Your task to perform on an android device: Open Youtube and go to "Your channel" Image 0: 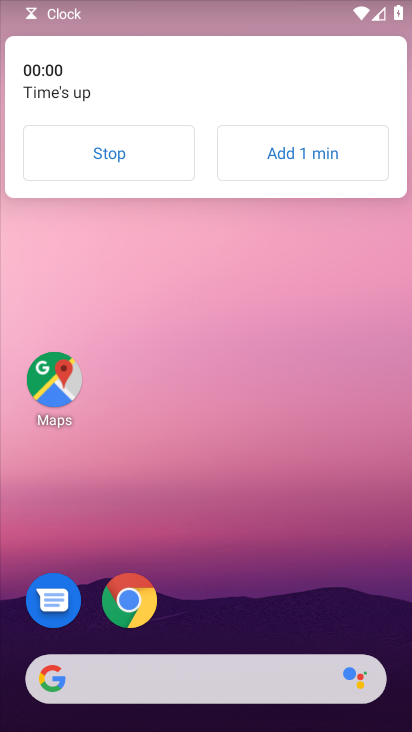
Step 0: drag from (212, 602) to (223, 361)
Your task to perform on an android device: Open Youtube and go to "Your channel" Image 1: 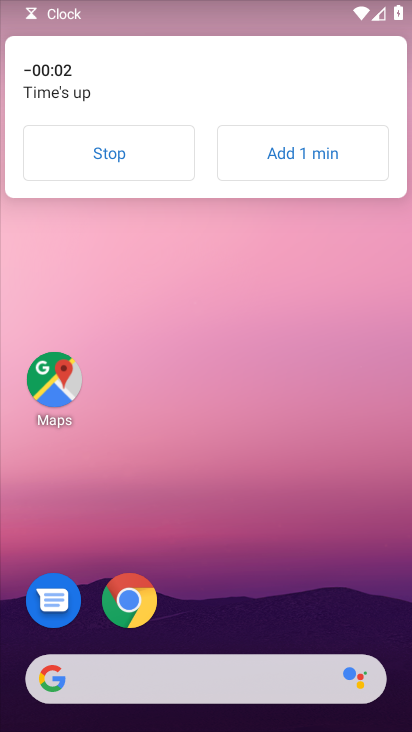
Step 1: click (130, 156)
Your task to perform on an android device: Open Youtube and go to "Your channel" Image 2: 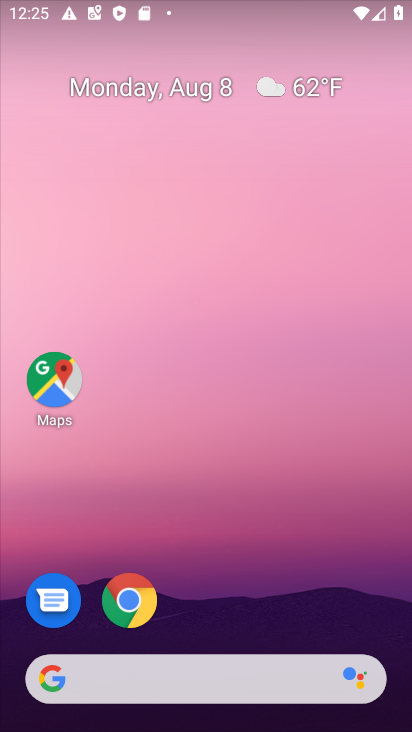
Step 2: drag from (232, 587) to (232, 183)
Your task to perform on an android device: Open Youtube and go to "Your channel" Image 3: 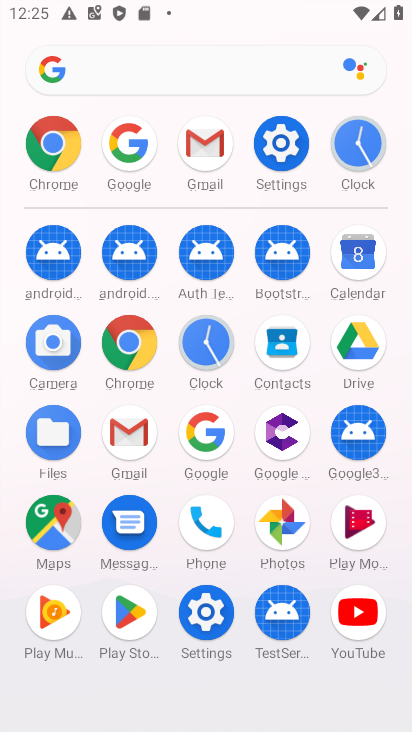
Step 3: click (359, 621)
Your task to perform on an android device: Open Youtube and go to "Your channel" Image 4: 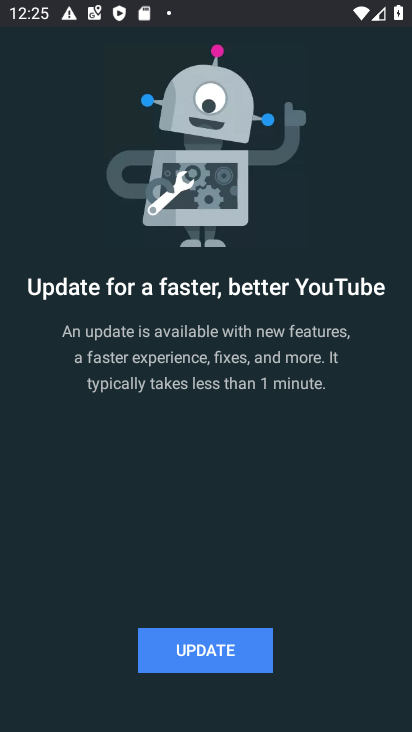
Step 4: click (217, 663)
Your task to perform on an android device: Open Youtube and go to "Your channel" Image 5: 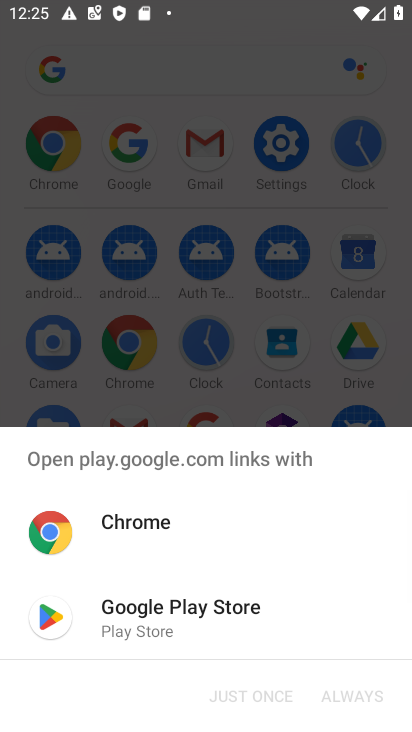
Step 5: click (241, 602)
Your task to perform on an android device: Open Youtube and go to "Your channel" Image 6: 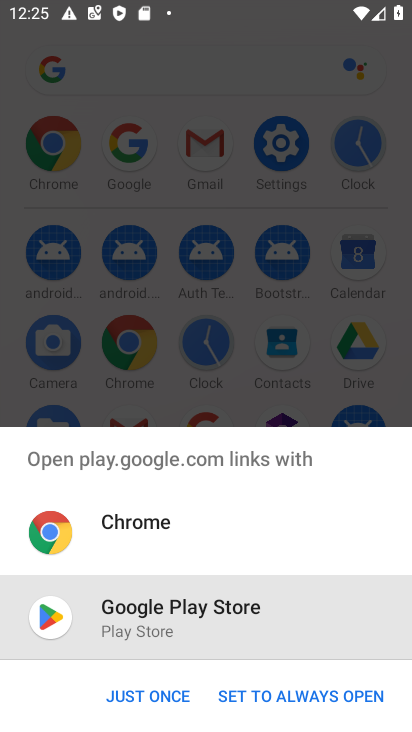
Step 6: click (147, 703)
Your task to perform on an android device: Open Youtube and go to "Your channel" Image 7: 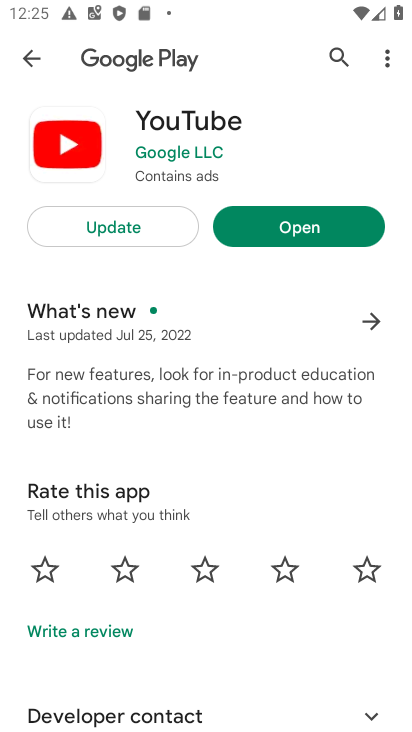
Step 7: click (131, 223)
Your task to perform on an android device: Open Youtube and go to "Your channel" Image 8: 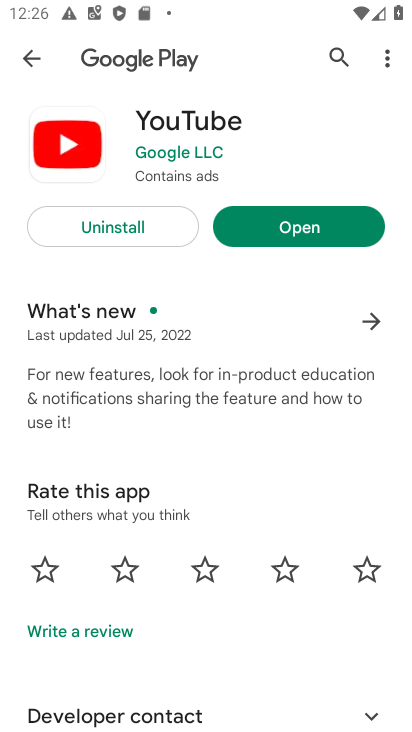
Step 8: click (280, 227)
Your task to perform on an android device: Open Youtube and go to "Your channel" Image 9: 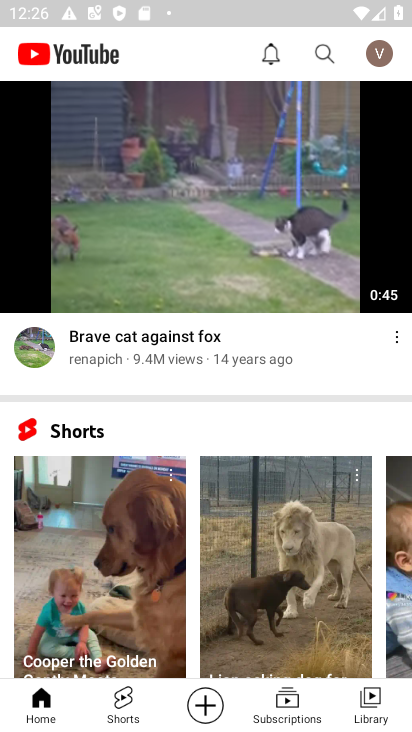
Step 9: click (374, 56)
Your task to perform on an android device: Open Youtube and go to "Your channel" Image 10: 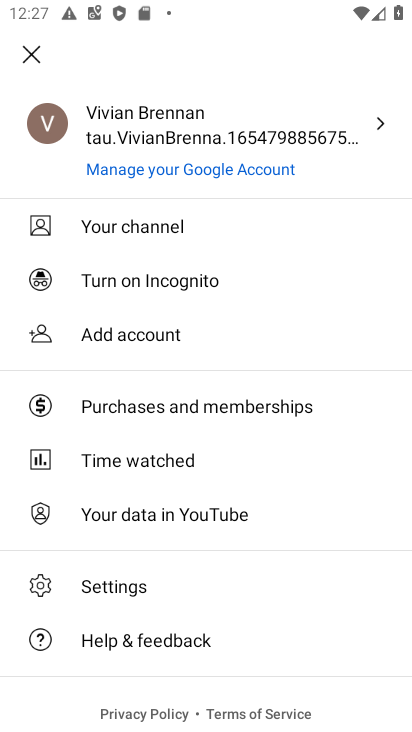
Step 10: click (91, 234)
Your task to perform on an android device: Open Youtube and go to "Your channel" Image 11: 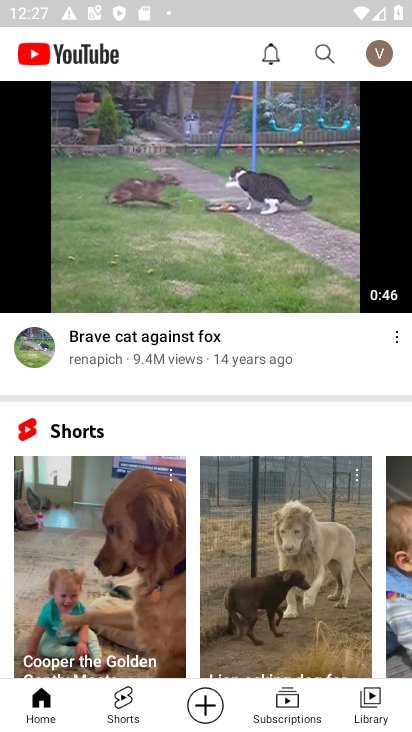
Step 11: task complete